Your task to perform on an android device: open chrome and create a bookmark for the current page Image 0: 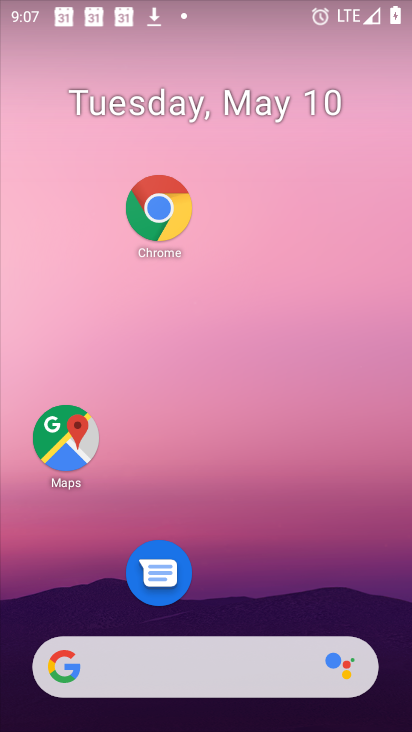
Step 0: press home button
Your task to perform on an android device: open chrome and create a bookmark for the current page Image 1: 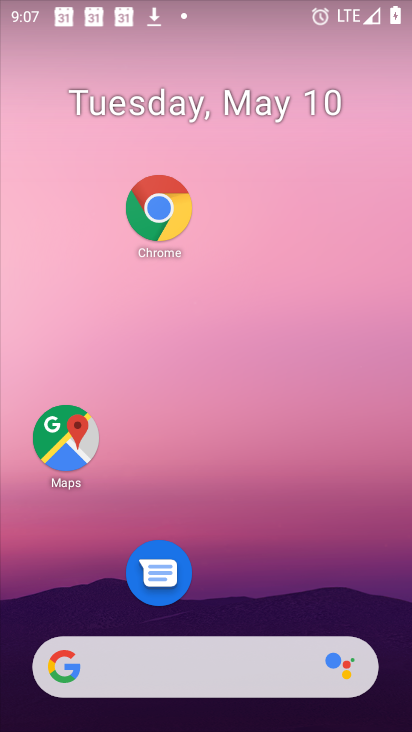
Step 1: drag from (288, 656) to (337, 269)
Your task to perform on an android device: open chrome and create a bookmark for the current page Image 2: 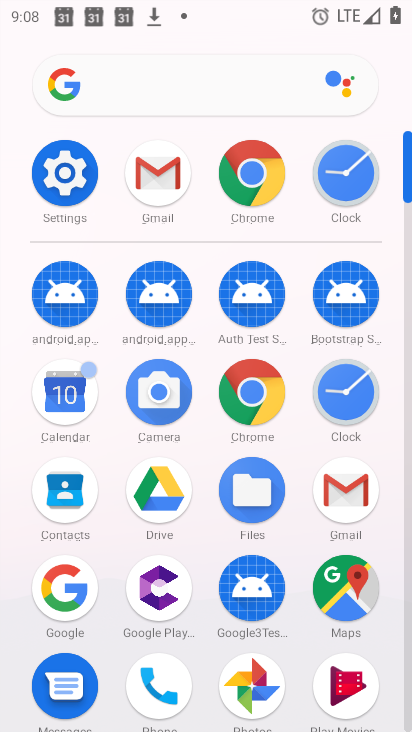
Step 2: click (263, 394)
Your task to perform on an android device: open chrome and create a bookmark for the current page Image 3: 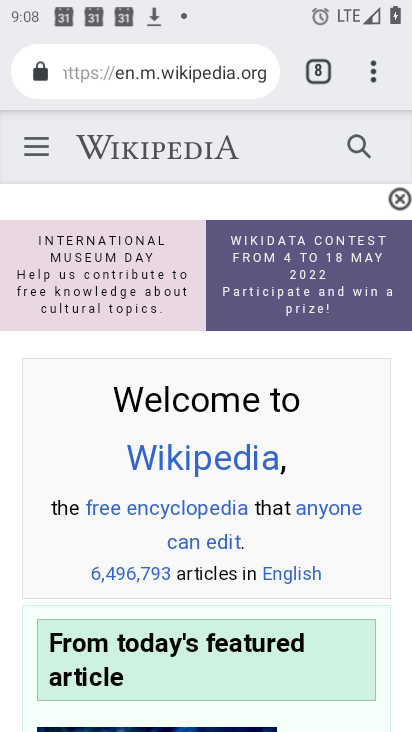
Step 3: click (368, 87)
Your task to perform on an android device: open chrome and create a bookmark for the current page Image 4: 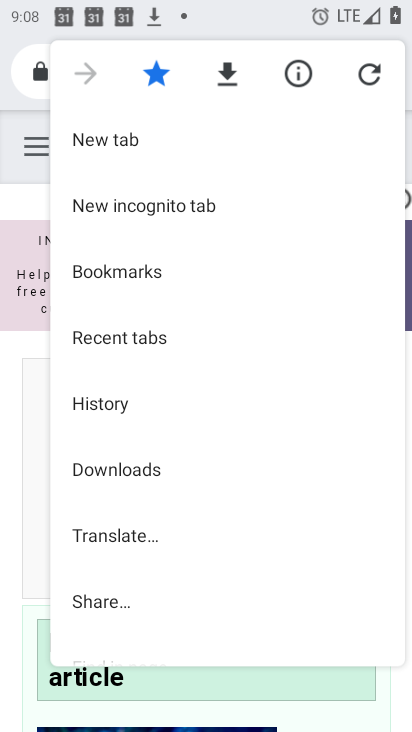
Step 4: drag from (233, 504) to (305, 308)
Your task to perform on an android device: open chrome and create a bookmark for the current page Image 5: 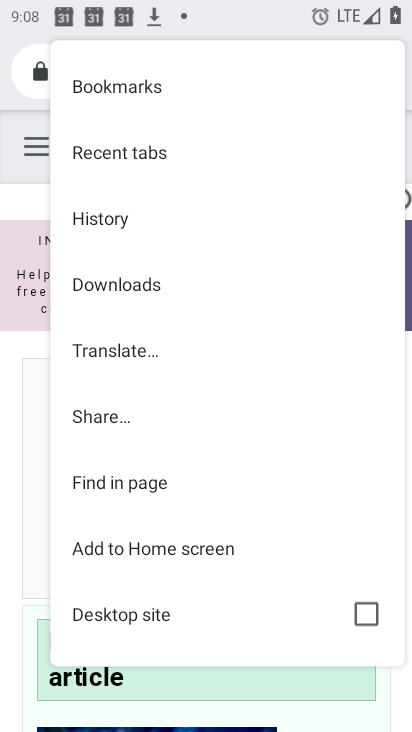
Step 5: click (167, 90)
Your task to perform on an android device: open chrome and create a bookmark for the current page Image 6: 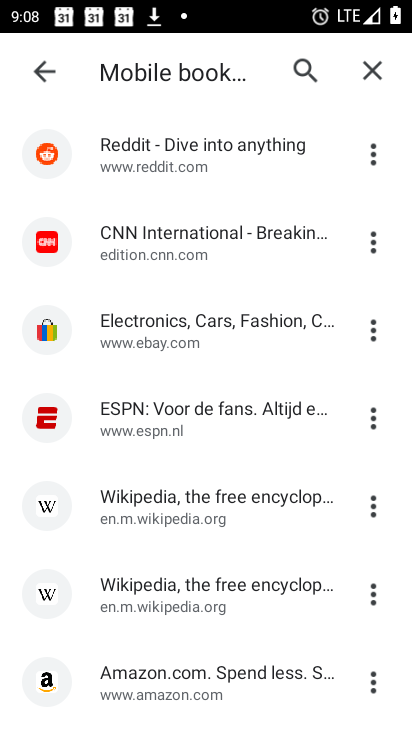
Step 6: task complete